Your task to perform on an android device: turn pop-ups on in chrome Image 0: 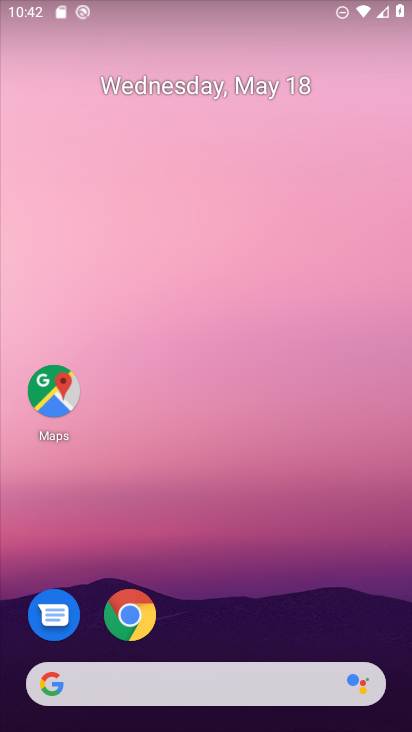
Step 0: click (126, 622)
Your task to perform on an android device: turn pop-ups on in chrome Image 1: 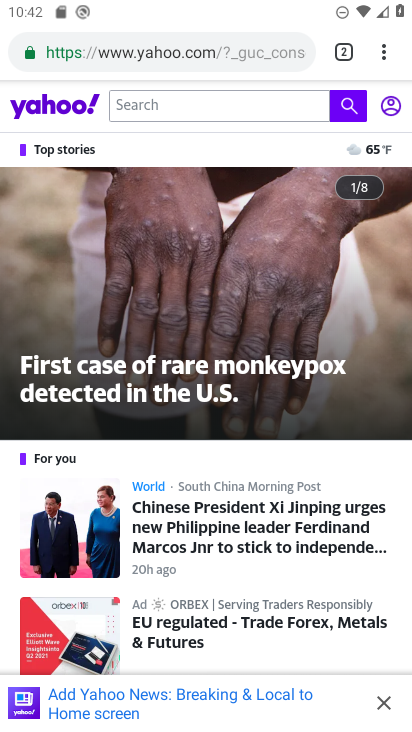
Step 1: click (376, 59)
Your task to perform on an android device: turn pop-ups on in chrome Image 2: 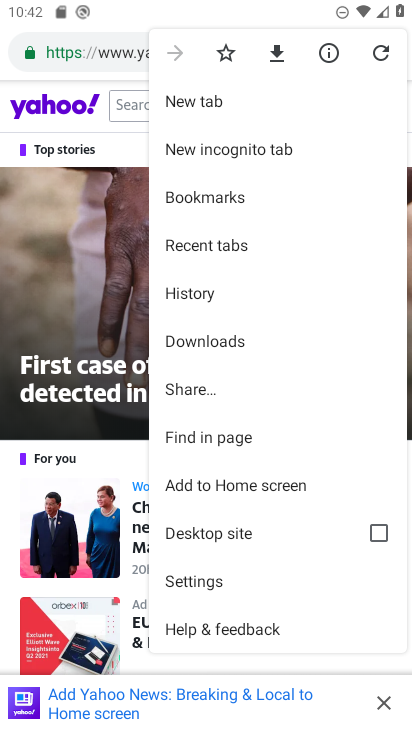
Step 2: click (235, 572)
Your task to perform on an android device: turn pop-ups on in chrome Image 3: 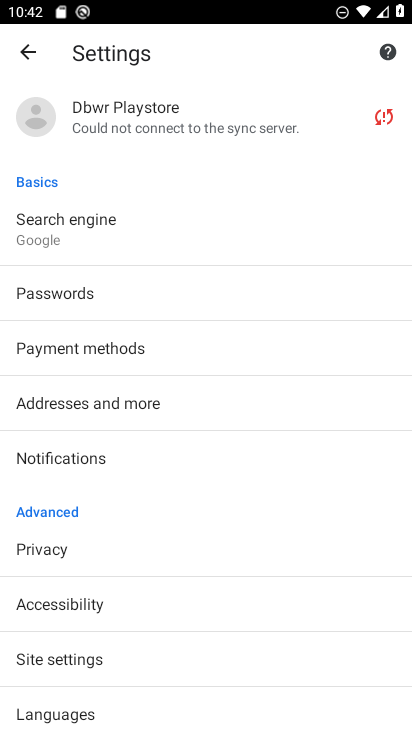
Step 3: click (84, 663)
Your task to perform on an android device: turn pop-ups on in chrome Image 4: 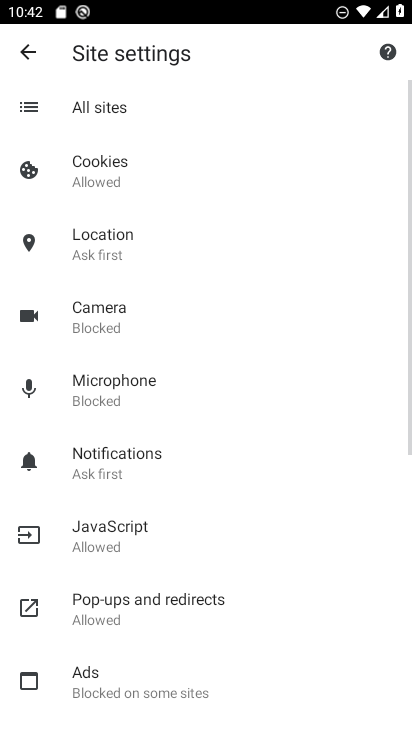
Step 4: click (161, 607)
Your task to perform on an android device: turn pop-ups on in chrome Image 5: 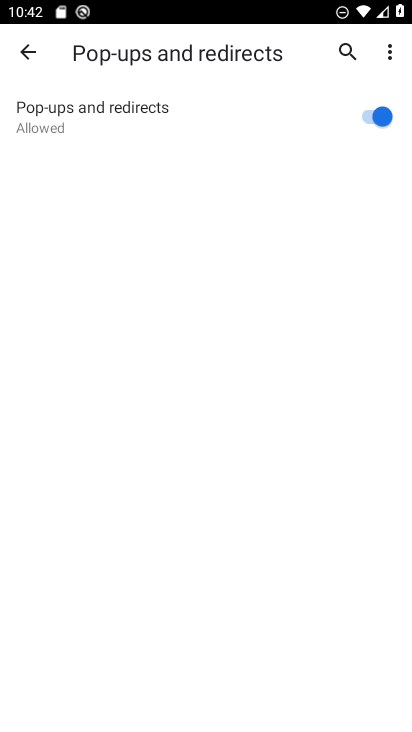
Step 5: task complete